Your task to perform on an android device: manage bookmarks in the chrome app Image 0: 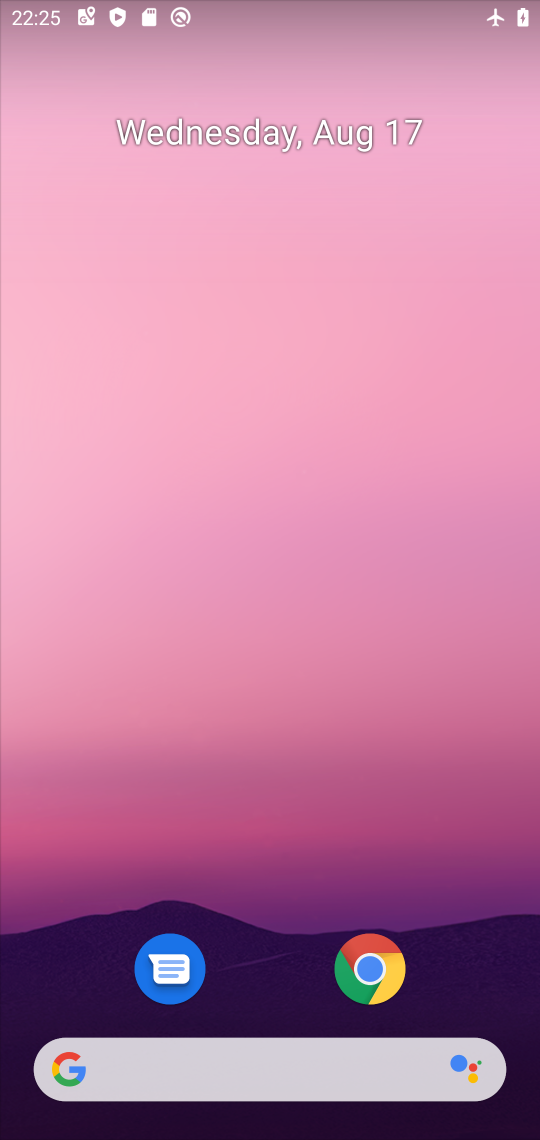
Step 0: click (362, 971)
Your task to perform on an android device: manage bookmarks in the chrome app Image 1: 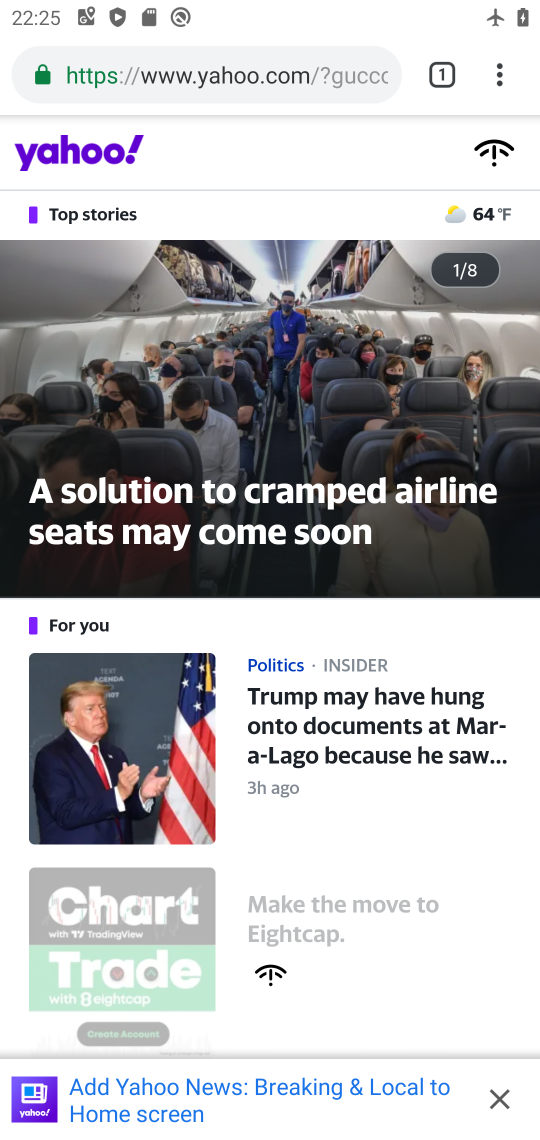
Step 1: click (493, 82)
Your task to perform on an android device: manage bookmarks in the chrome app Image 2: 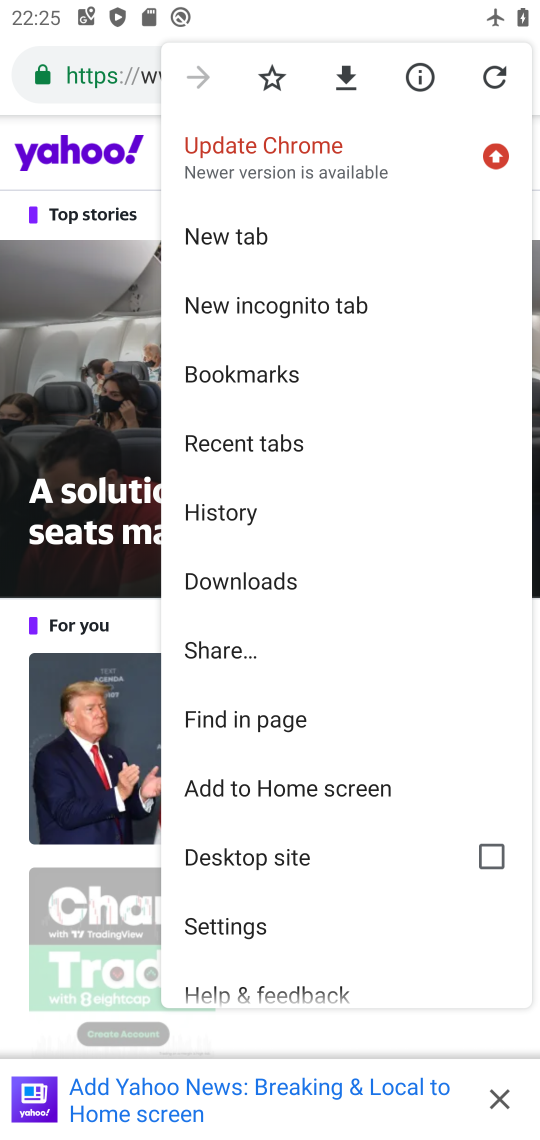
Step 2: click (242, 373)
Your task to perform on an android device: manage bookmarks in the chrome app Image 3: 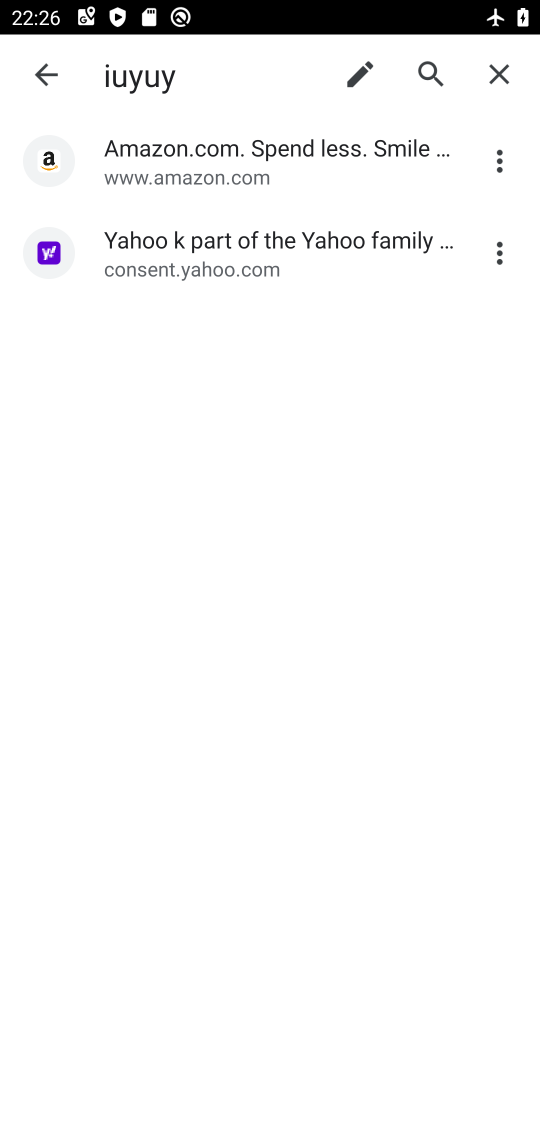
Step 3: click (504, 239)
Your task to perform on an android device: manage bookmarks in the chrome app Image 4: 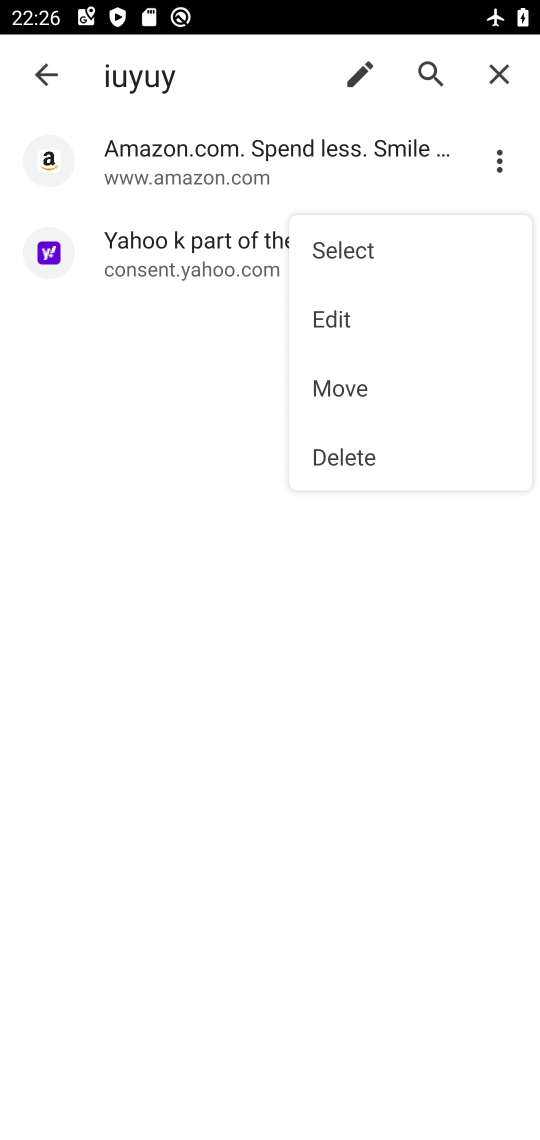
Step 4: click (340, 310)
Your task to perform on an android device: manage bookmarks in the chrome app Image 5: 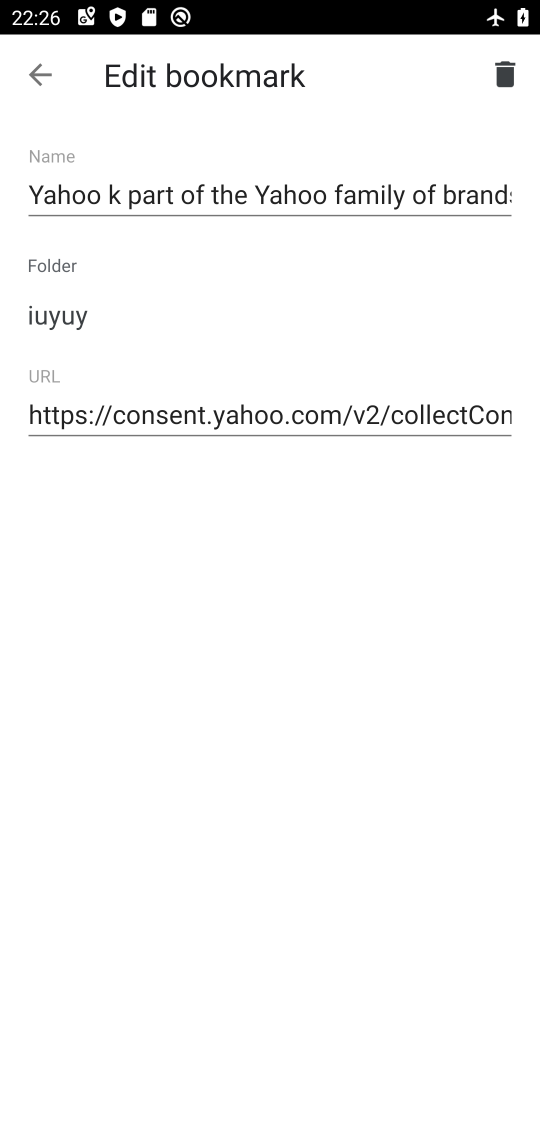
Step 5: task complete